Your task to perform on an android device: Open Google Chrome and click the shortcut for Amazon.com Image 0: 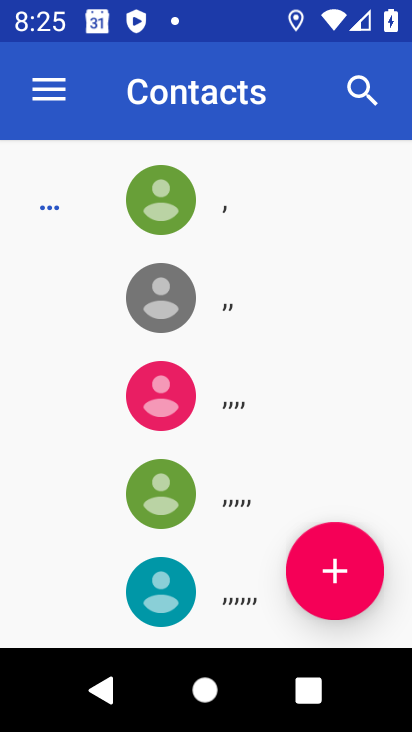
Step 0: press home button
Your task to perform on an android device: Open Google Chrome and click the shortcut for Amazon.com Image 1: 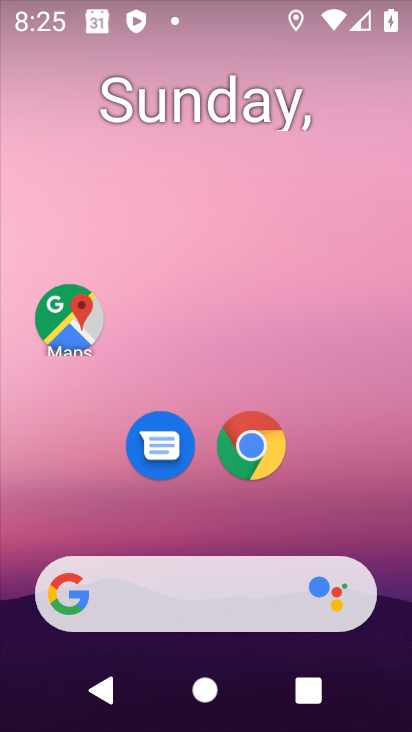
Step 1: drag from (328, 486) to (244, 130)
Your task to perform on an android device: Open Google Chrome and click the shortcut for Amazon.com Image 2: 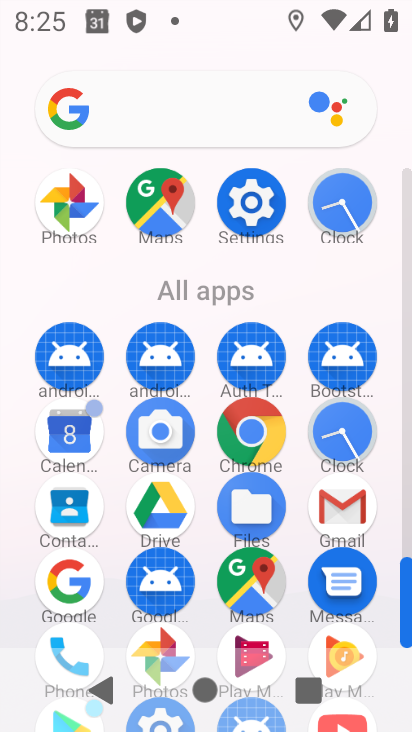
Step 2: click (247, 429)
Your task to perform on an android device: Open Google Chrome and click the shortcut for Amazon.com Image 3: 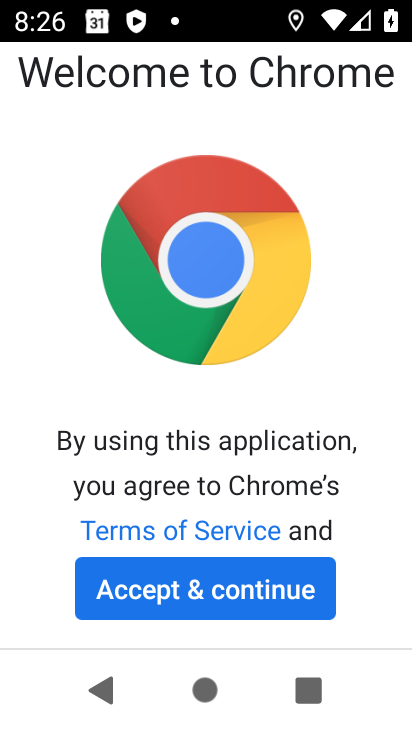
Step 3: click (237, 600)
Your task to perform on an android device: Open Google Chrome and click the shortcut for Amazon.com Image 4: 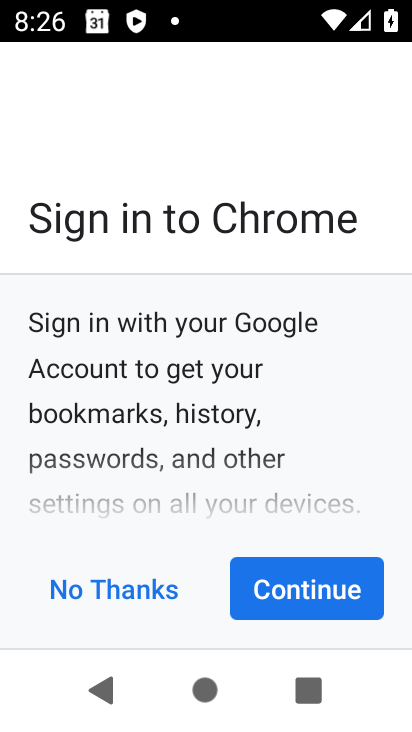
Step 4: click (265, 593)
Your task to perform on an android device: Open Google Chrome and click the shortcut for Amazon.com Image 5: 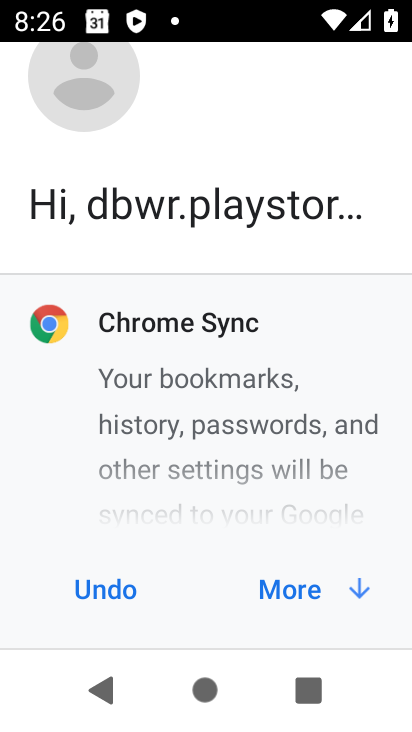
Step 5: click (266, 592)
Your task to perform on an android device: Open Google Chrome and click the shortcut for Amazon.com Image 6: 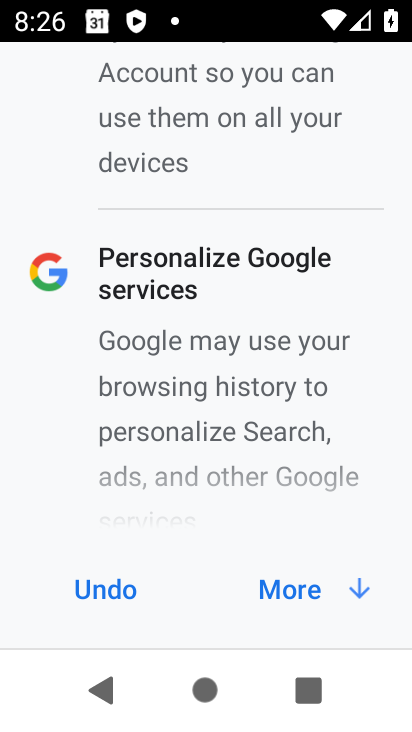
Step 6: click (266, 592)
Your task to perform on an android device: Open Google Chrome and click the shortcut for Amazon.com Image 7: 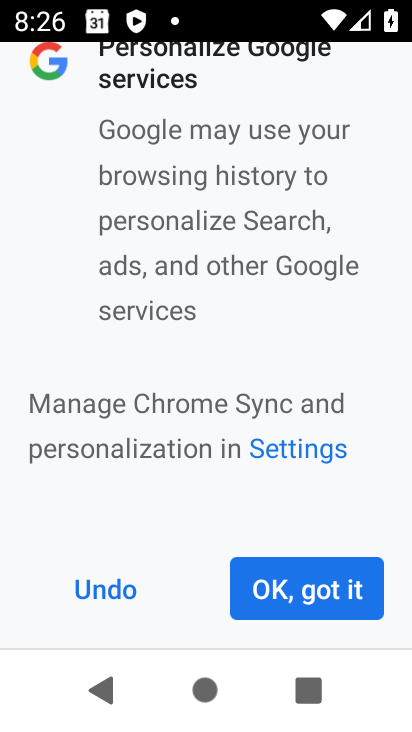
Step 7: click (265, 591)
Your task to perform on an android device: Open Google Chrome and click the shortcut for Amazon.com Image 8: 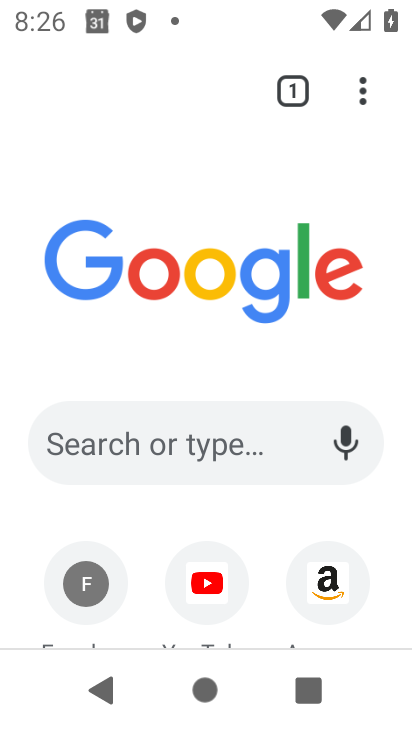
Step 8: click (344, 566)
Your task to perform on an android device: Open Google Chrome and click the shortcut for Amazon.com Image 9: 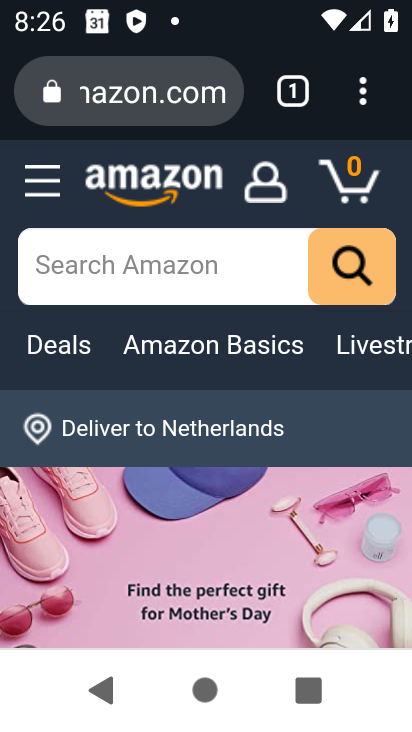
Step 9: task complete